Your task to perform on an android device: check the backup settings in the google photos Image 0: 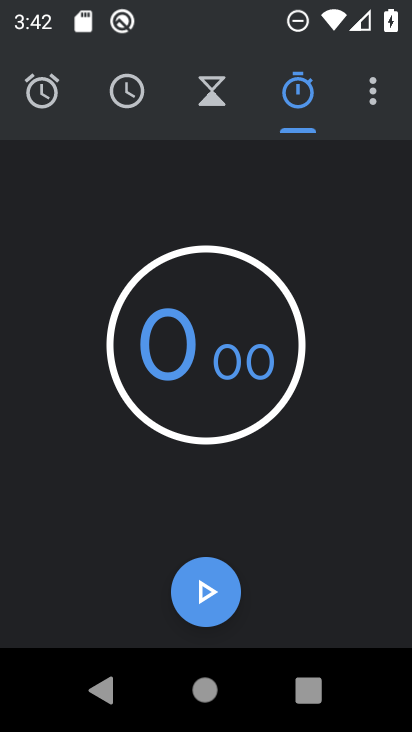
Step 0: press home button
Your task to perform on an android device: check the backup settings in the google photos Image 1: 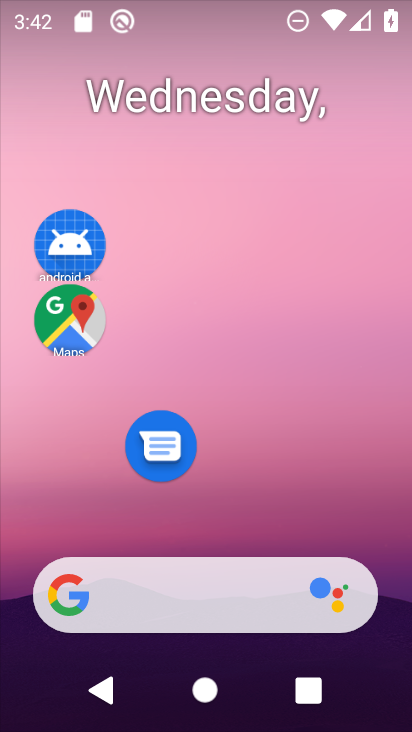
Step 1: drag from (274, 523) to (304, 189)
Your task to perform on an android device: check the backup settings in the google photos Image 2: 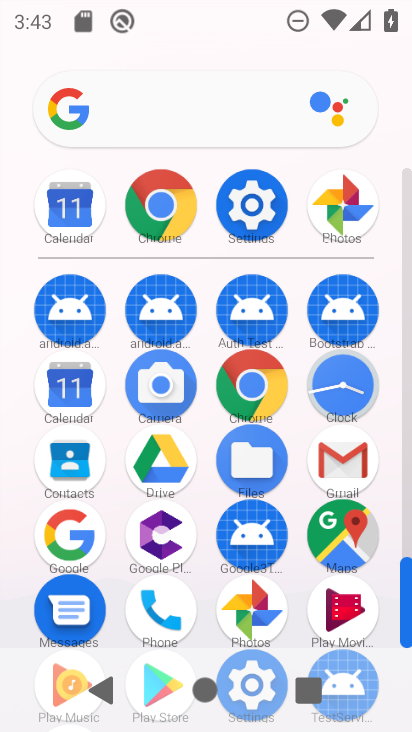
Step 2: click (264, 614)
Your task to perform on an android device: check the backup settings in the google photos Image 3: 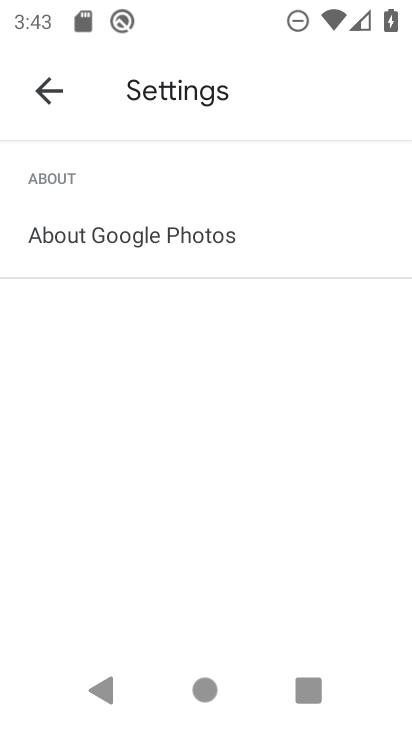
Step 3: click (35, 73)
Your task to perform on an android device: check the backup settings in the google photos Image 4: 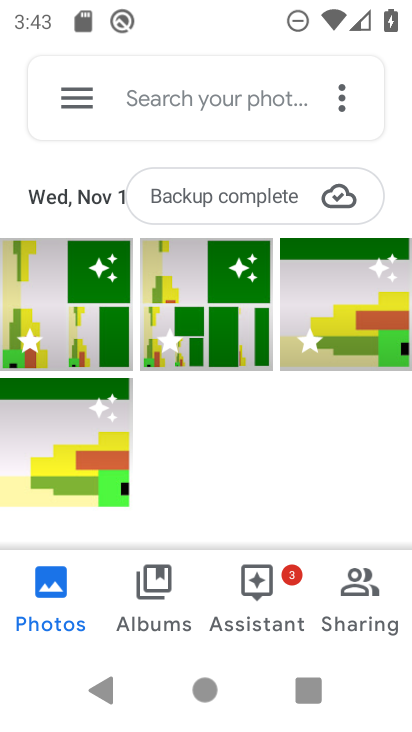
Step 4: click (73, 104)
Your task to perform on an android device: check the backup settings in the google photos Image 5: 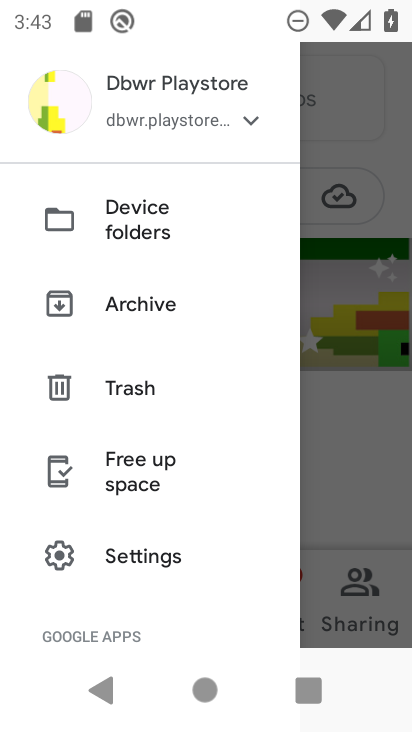
Step 5: click (135, 541)
Your task to perform on an android device: check the backup settings in the google photos Image 6: 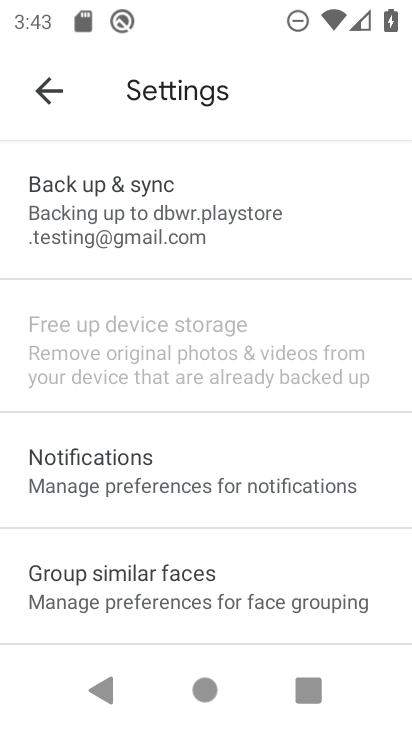
Step 6: click (116, 188)
Your task to perform on an android device: check the backup settings in the google photos Image 7: 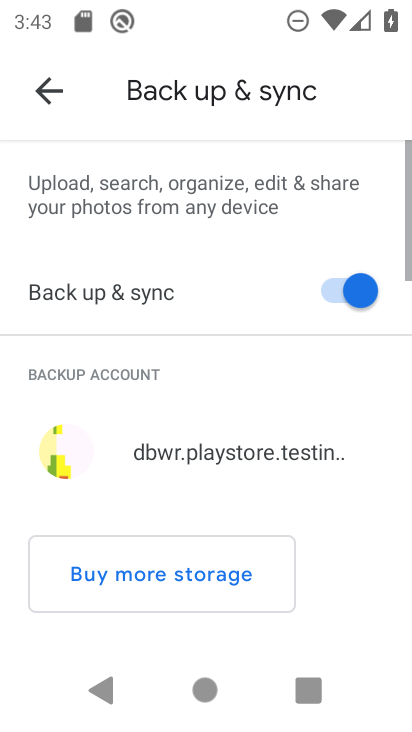
Step 7: task complete